Your task to perform on an android device: toggle priority inbox in the gmail app Image 0: 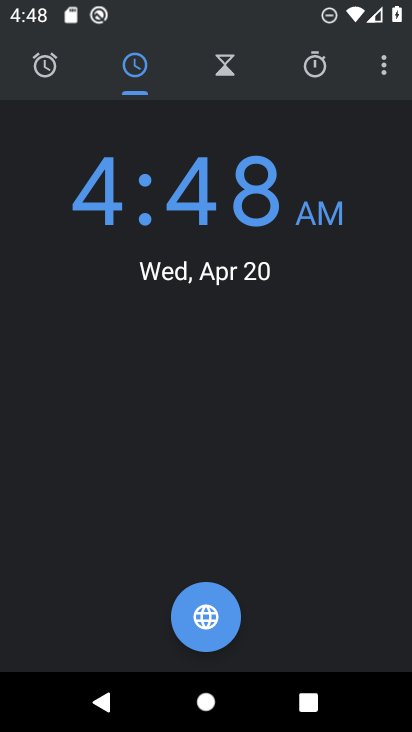
Step 0: press home button
Your task to perform on an android device: toggle priority inbox in the gmail app Image 1: 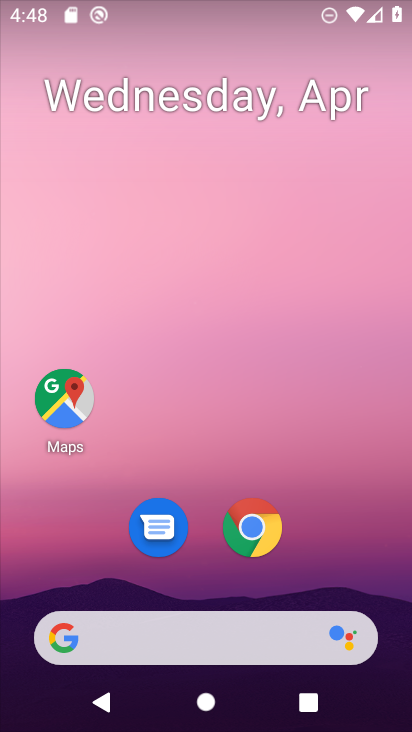
Step 1: drag from (368, 568) to (409, 340)
Your task to perform on an android device: toggle priority inbox in the gmail app Image 2: 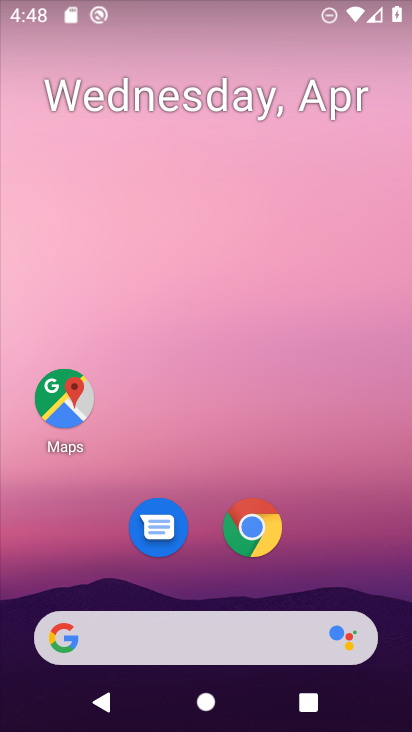
Step 2: click (355, 530)
Your task to perform on an android device: toggle priority inbox in the gmail app Image 3: 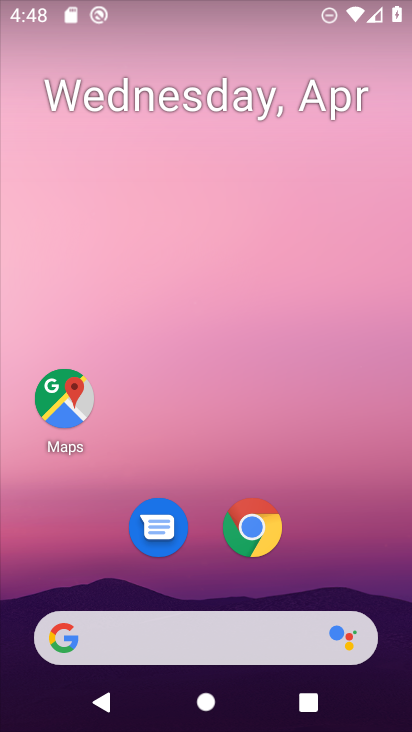
Step 3: drag from (347, 291) to (336, 7)
Your task to perform on an android device: toggle priority inbox in the gmail app Image 4: 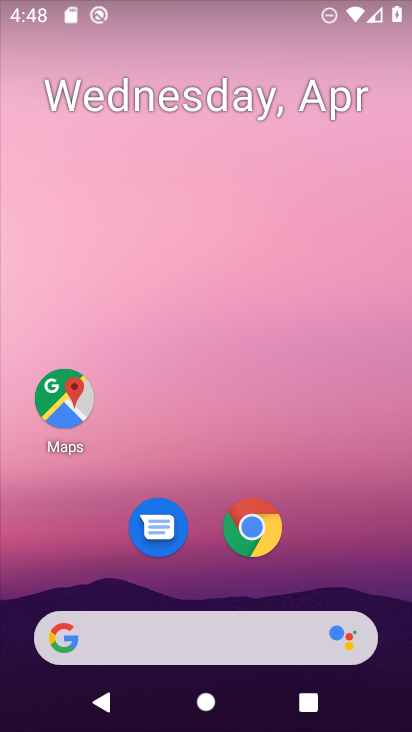
Step 4: drag from (345, 311) to (317, 2)
Your task to perform on an android device: toggle priority inbox in the gmail app Image 5: 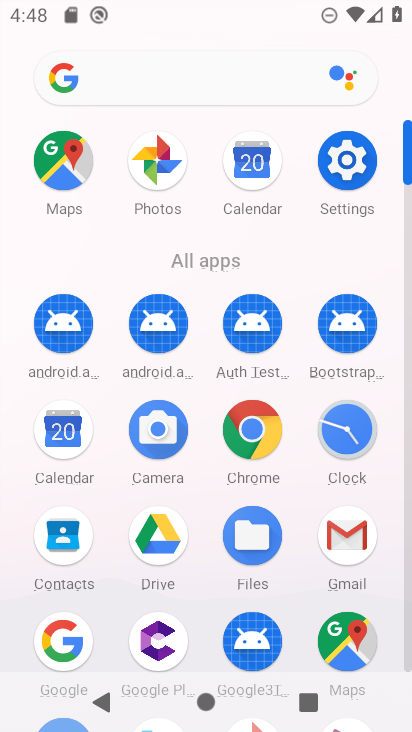
Step 5: click (339, 543)
Your task to perform on an android device: toggle priority inbox in the gmail app Image 6: 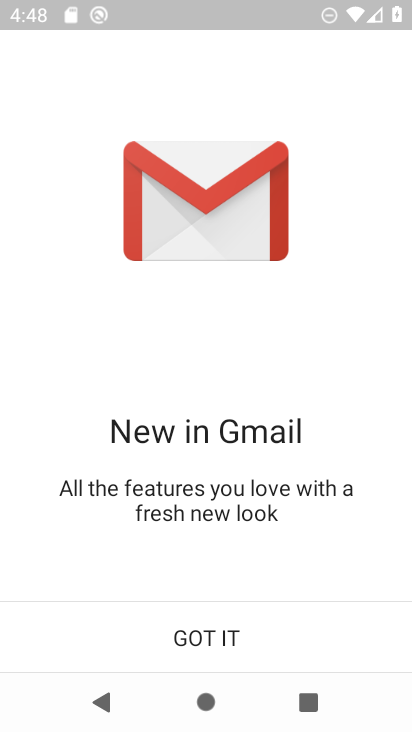
Step 6: click (186, 628)
Your task to perform on an android device: toggle priority inbox in the gmail app Image 7: 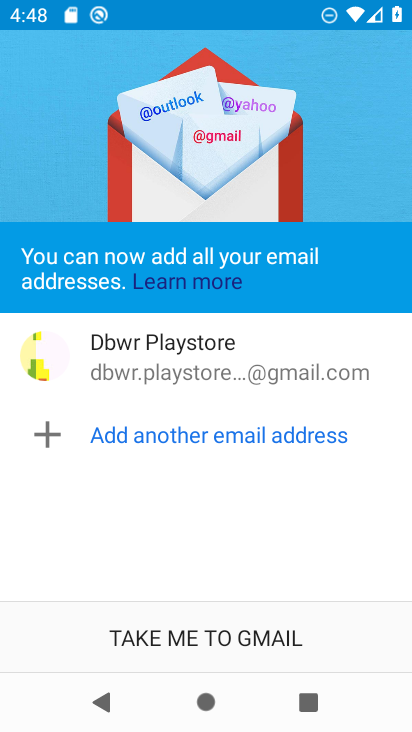
Step 7: click (186, 628)
Your task to perform on an android device: toggle priority inbox in the gmail app Image 8: 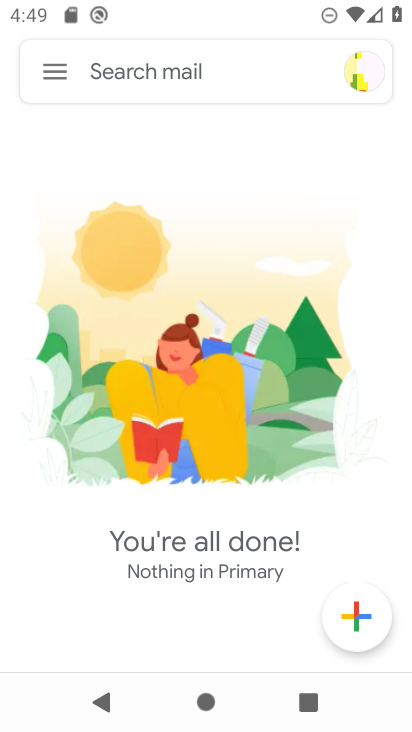
Step 8: click (56, 75)
Your task to perform on an android device: toggle priority inbox in the gmail app Image 9: 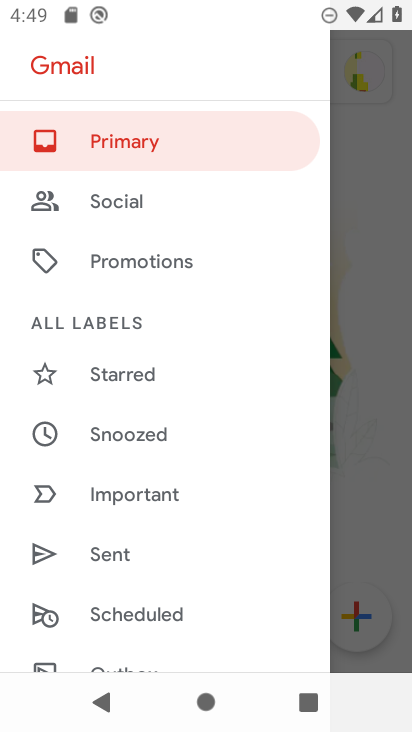
Step 9: drag from (261, 504) to (241, 49)
Your task to perform on an android device: toggle priority inbox in the gmail app Image 10: 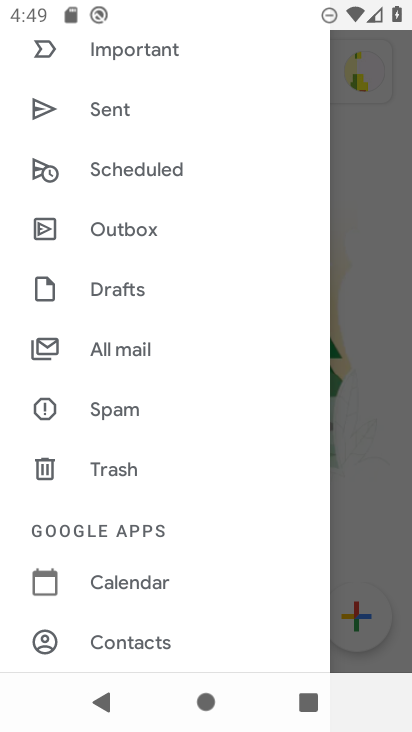
Step 10: drag from (246, 525) to (206, 40)
Your task to perform on an android device: toggle priority inbox in the gmail app Image 11: 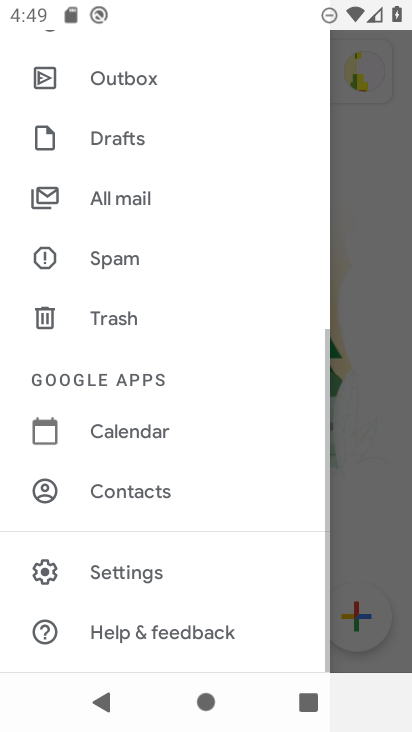
Step 11: click (127, 574)
Your task to perform on an android device: toggle priority inbox in the gmail app Image 12: 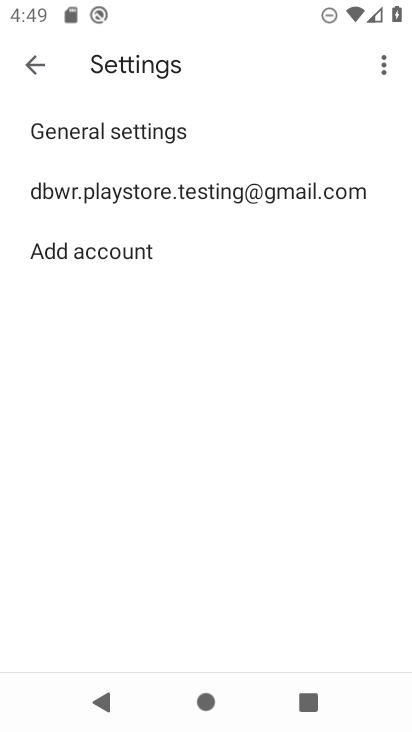
Step 12: click (92, 195)
Your task to perform on an android device: toggle priority inbox in the gmail app Image 13: 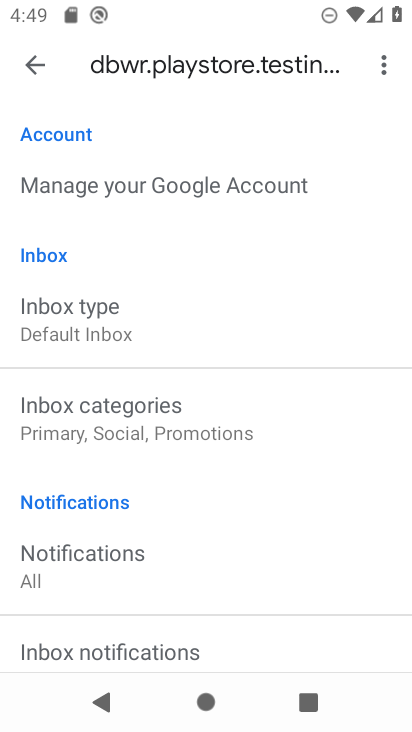
Step 13: click (76, 339)
Your task to perform on an android device: toggle priority inbox in the gmail app Image 14: 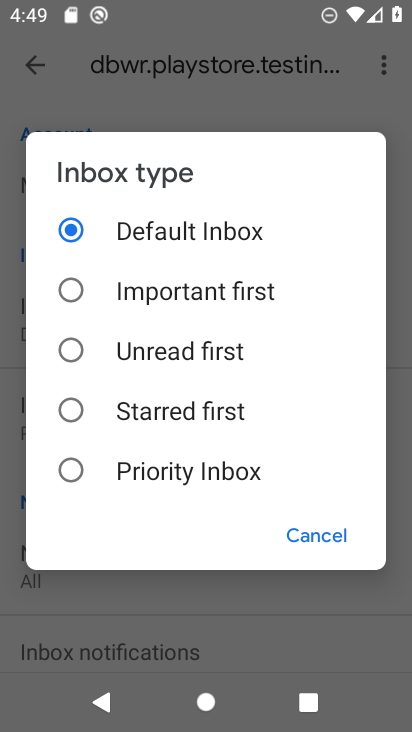
Step 14: click (72, 474)
Your task to perform on an android device: toggle priority inbox in the gmail app Image 15: 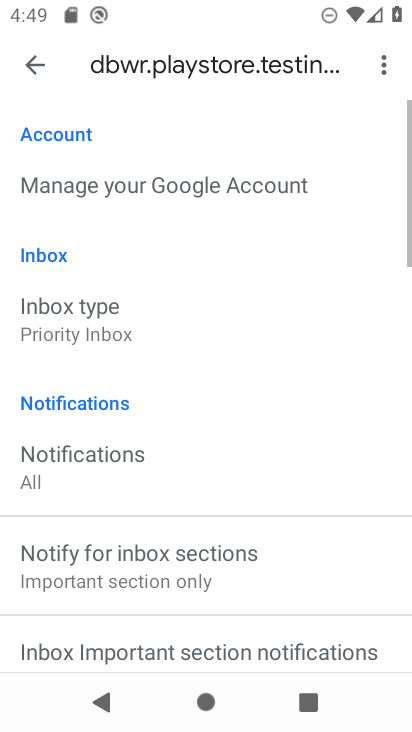
Step 15: task complete